Your task to perform on an android device: Open the stopwatch Image 0: 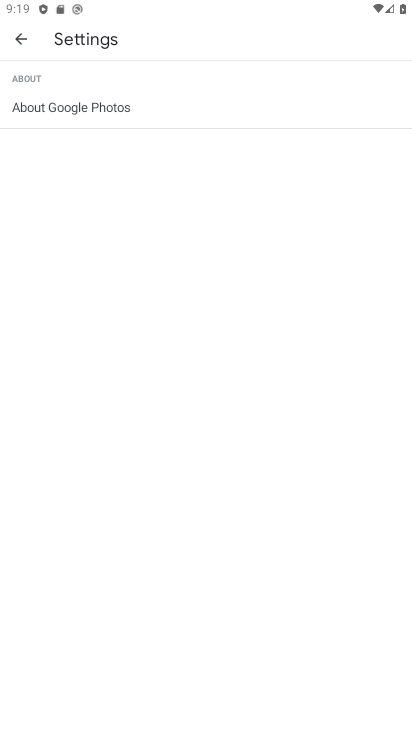
Step 0: press home button
Your task to perform on an android device: Open the stopwatch Image 1: 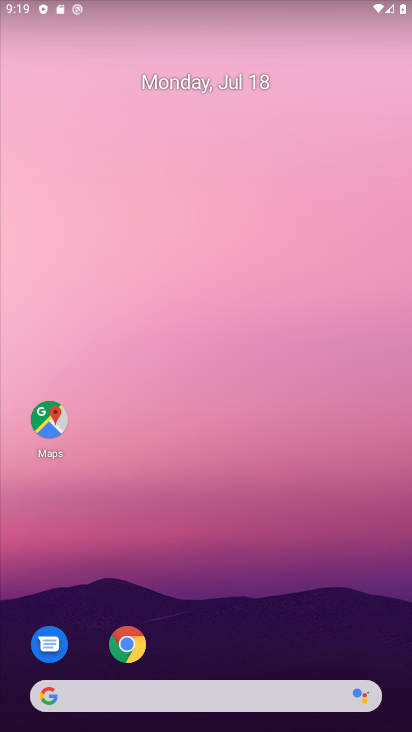
Step 1: drag from (210, 642) to (298, 13)
Your task to perform on an android device: Open the stopwatch Image 2: 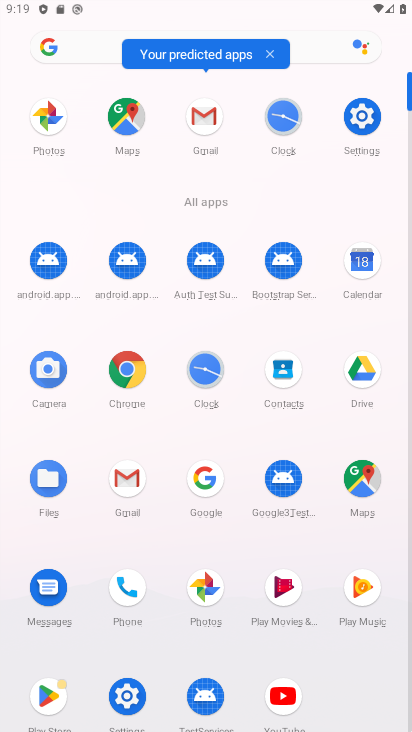
Step 2: click (207, 366)
Your task to perform on an android device: Open the stopwatch Image 3: 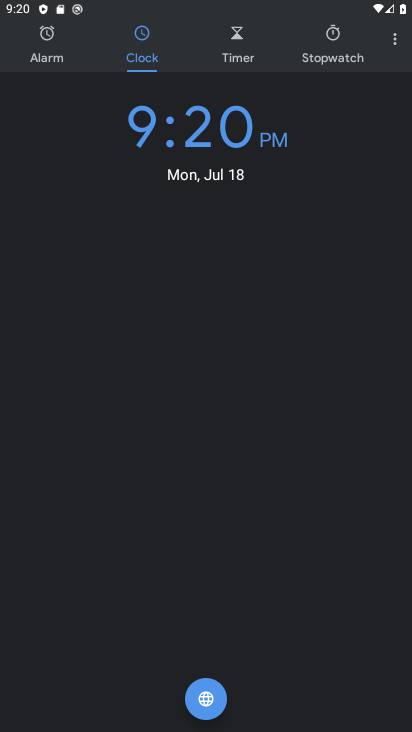
Step 3: click (332, 28)
Your task to perform on an android device: Open the stopwatch Image 4: 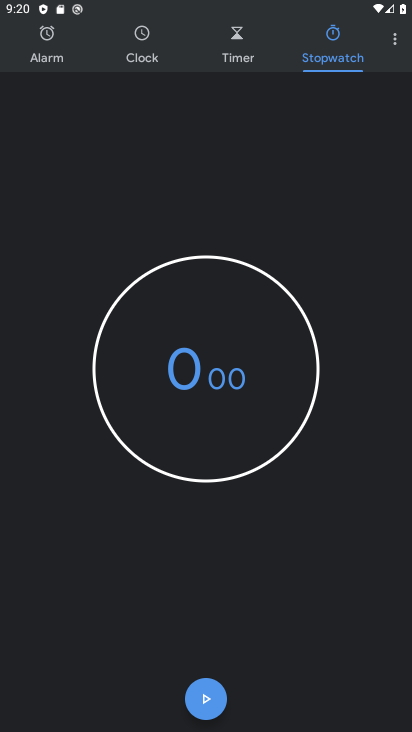
Step 4: click (200, 689)
Your task to perform on an android device: Open the stopwatch Image 5: 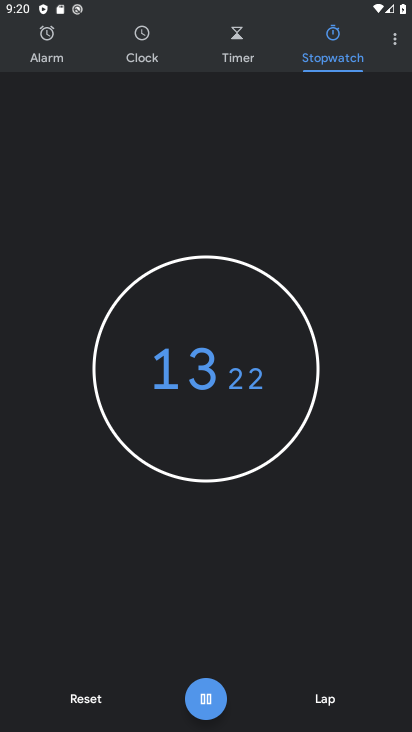
Step 5: task complete